Your task to perform on an android device: Go to Yahoo.com Image 0: 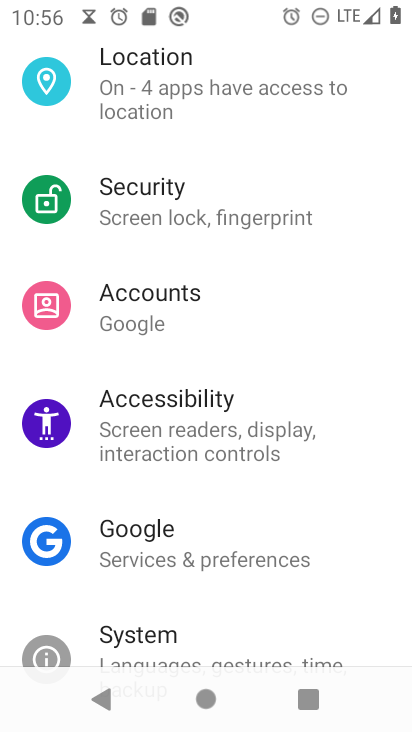
Step 0: press home button
Your task to perform on an android device: Go to Yahoo.com Image 1: 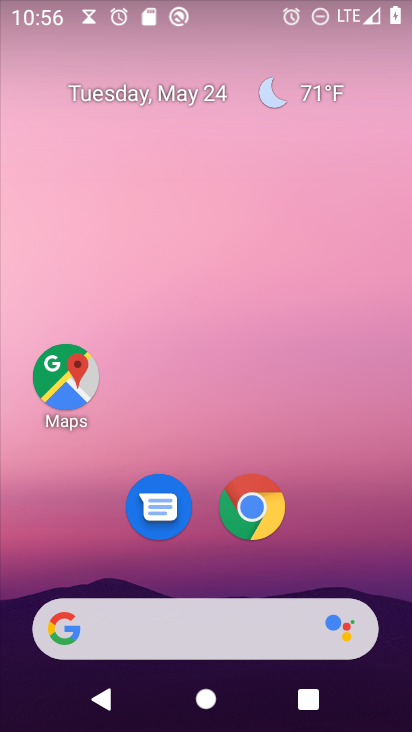
Step 1: click (252, 509)
Your task to perform on an android device: Go to Yahoo.com Image 2: 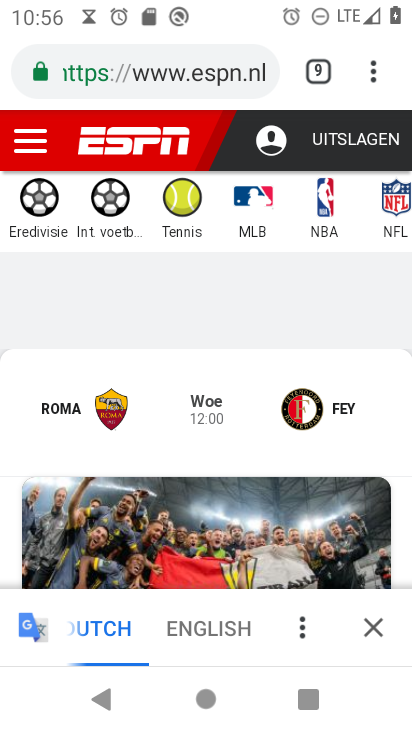
Step 2: click (375, 76)
Your task to perform on an android device: Go to Yahoo.com Image 3: 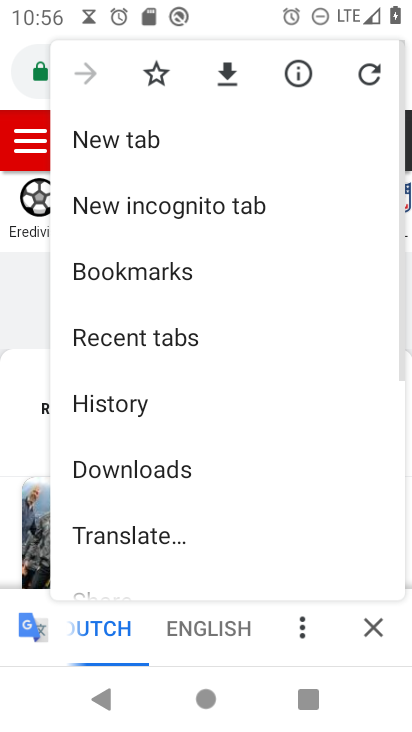
Step 3: click (150, 140)
Your task to perform on an android device: Go to Yahoo.com Image 4: 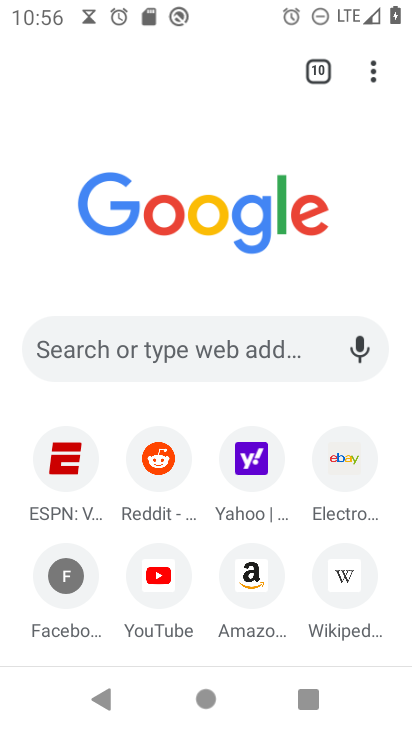
Step 4: click (244, 465)
Your task to perform on an android device: Go to Yahoo.com Image 5: 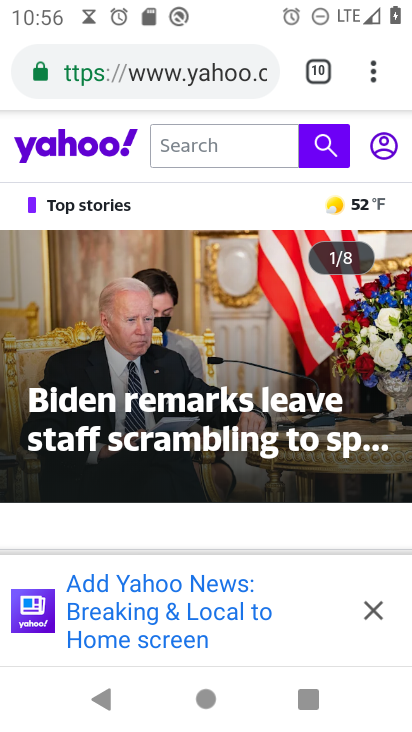
Step 5: task complete